Your task to perform on an android device: open wifi settings Image 0: 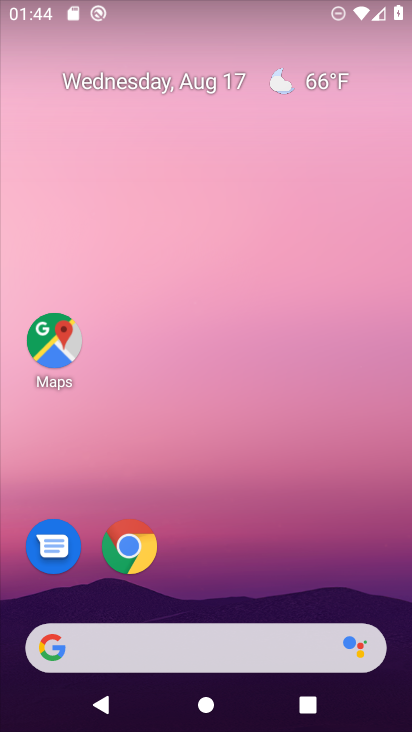
Step 0: drag from (225, 561) to (225, 120)
Your task to perform on an android device: open wifi settings Image 1: 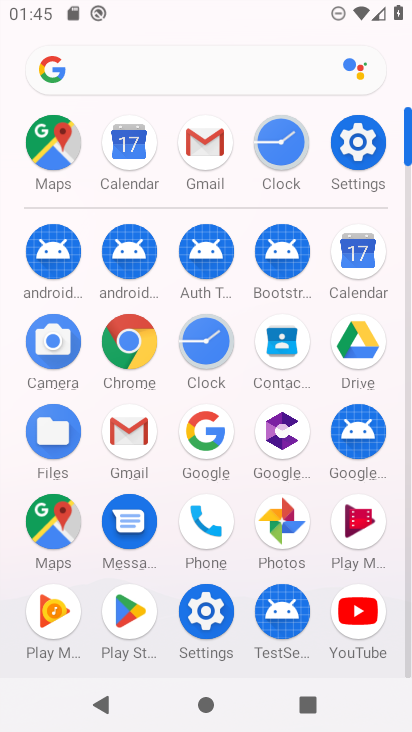
Step 1: click (361, 144)
Your task to perform on an android device: open wifi settings Image 2: 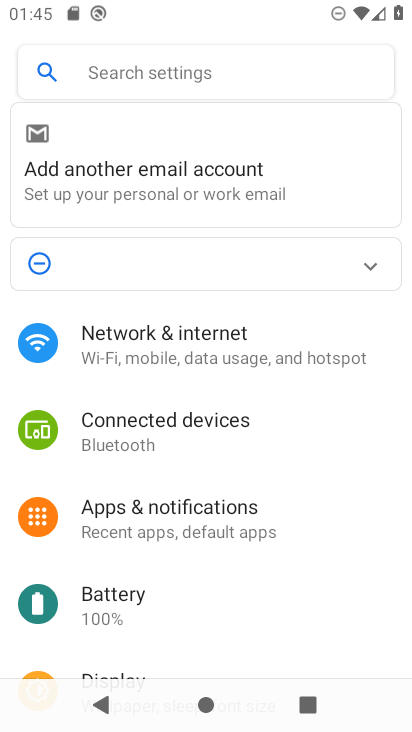
Step 2: click (189, 327)
Your task to perform on an android device: open wifi settings Image 3: 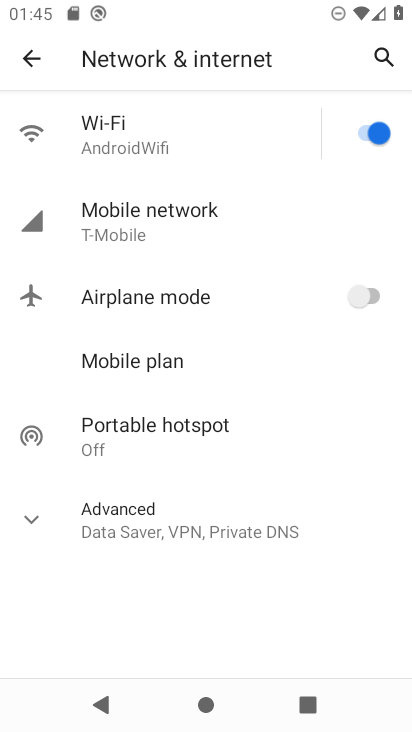
Step 3: task complete